Your task to perform on an android device: Clear the shopping cart on newegg. Search for "usb-c to usb-a" on newegg, select the first entry, and add it to the cart. Image 0: 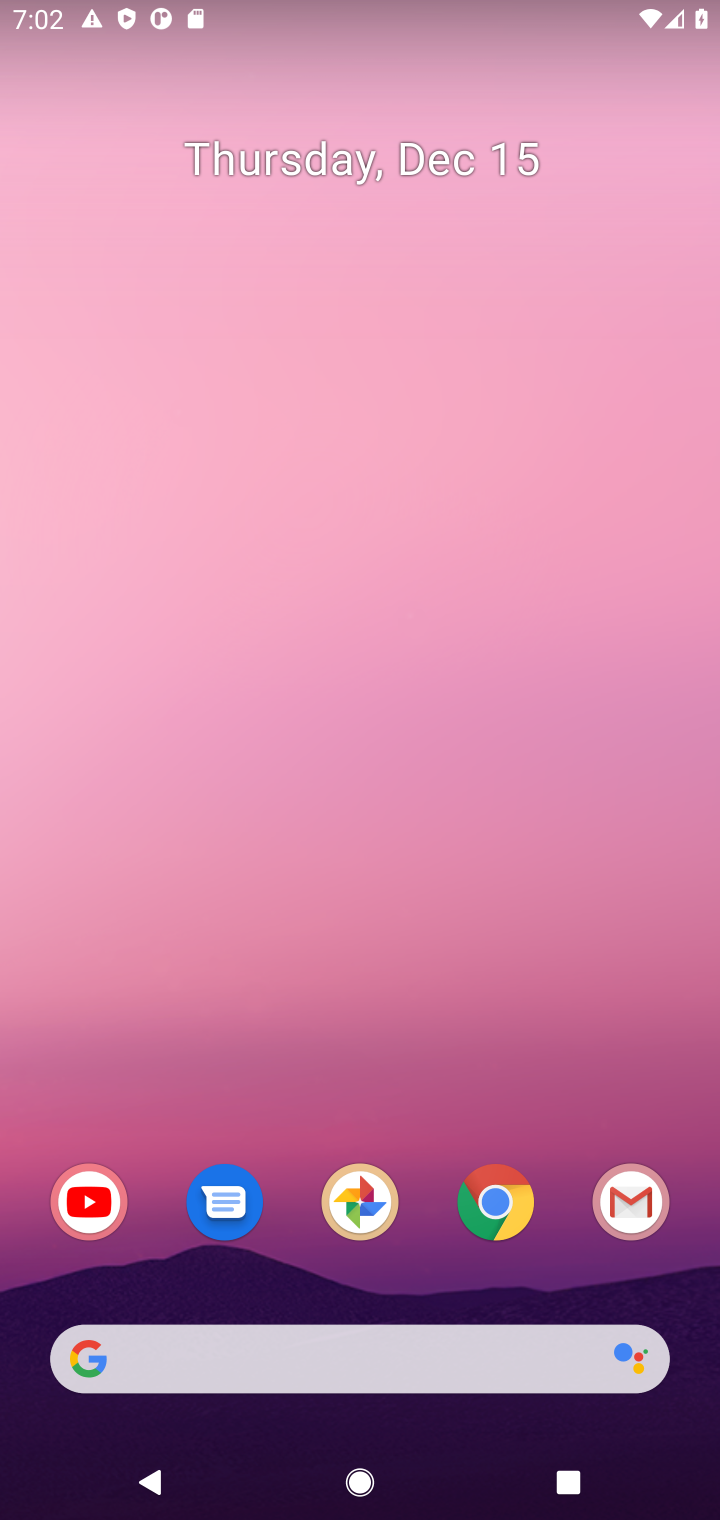
Step 0: click (492, 1209)
Your task to perform on an android device: Clear the shopping cart on newegg. Search for "usb-c to usb-a" on newegg, select the first entry, and add it to the cart. Image 1: 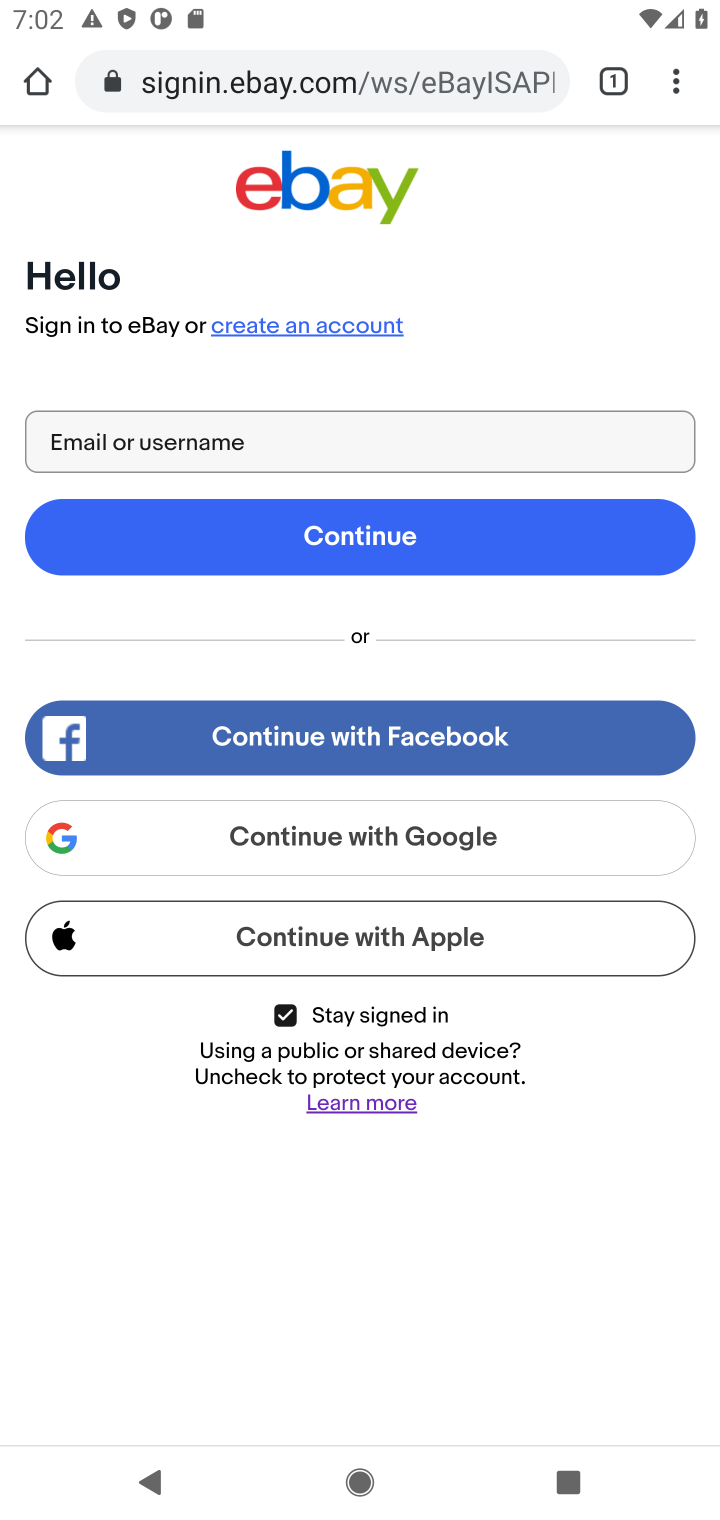
Step 1: click (264, 96)
Your task to perform on an android device: Clear the shopping cart on newegg. Search for "usb-c to usb-a" on newegg, select the first entry, and add it to the cart. Image 2: 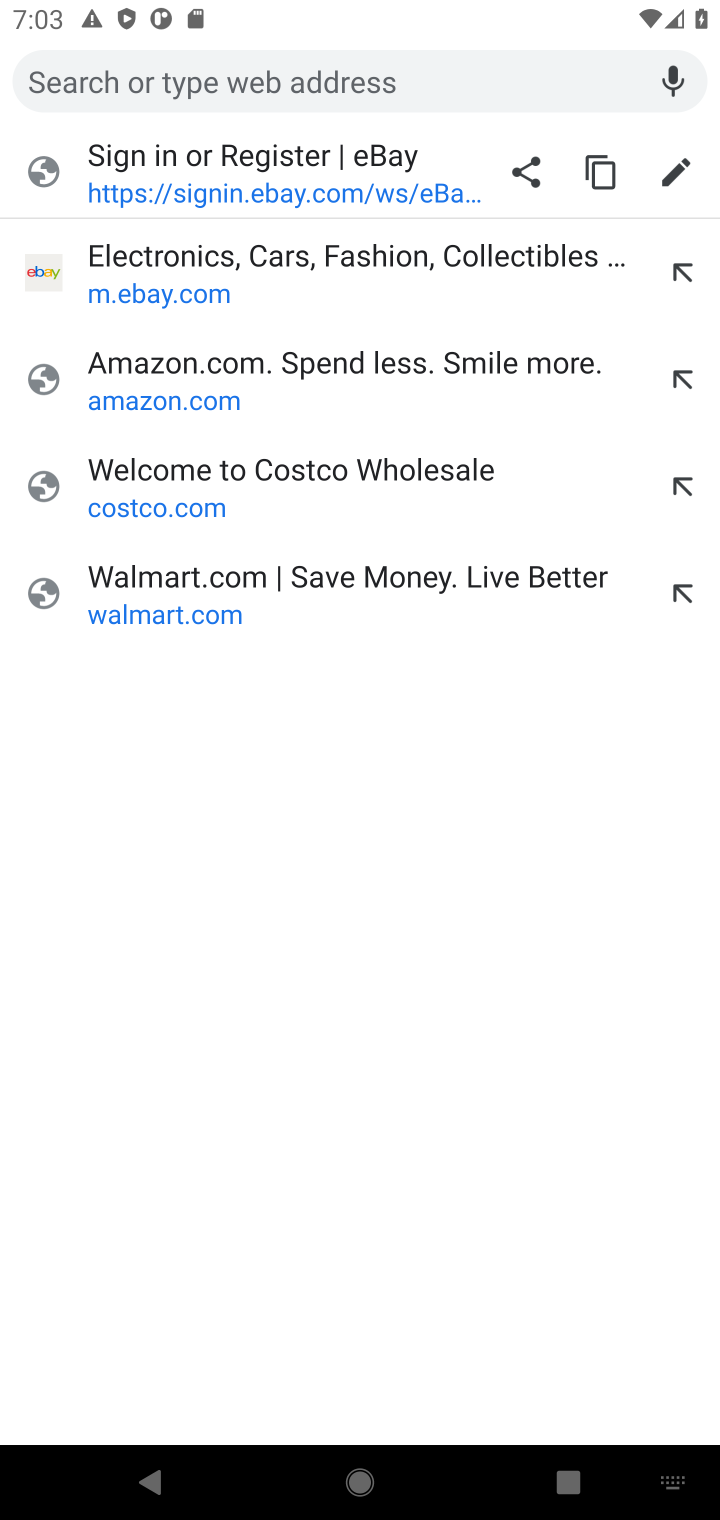
Step 2: type "newegg.com"
Your task to perform on an android device: Clear the shopping cart on newegg. Search for "usb-c to usb-a" on newegg, select the first entry, and add it to the cart. Image 3: 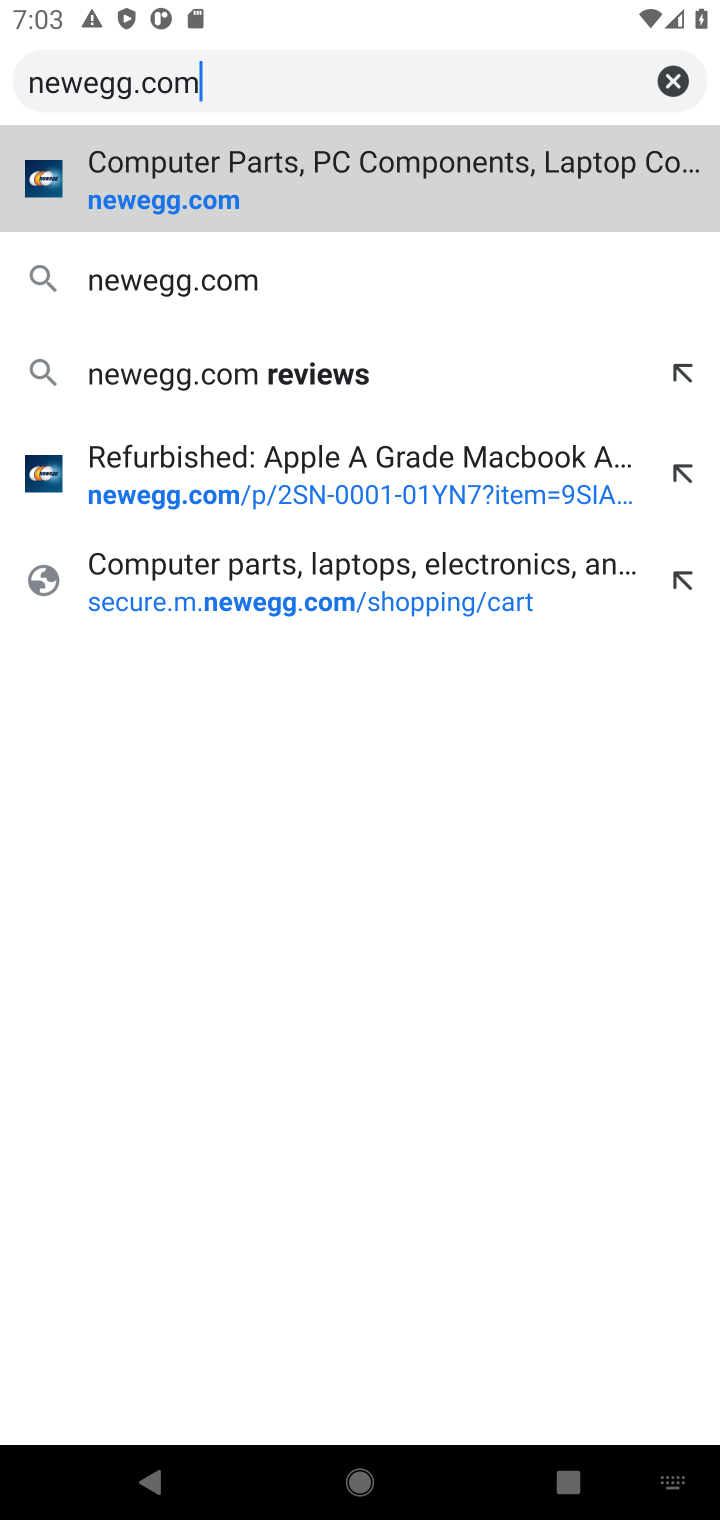
Step 3: click (151, 200)
Your task to perform on an android device: Clear the shopping cart on newegg. Search for "usb-c to usb-a" on newegg, select the first entry, and add it to the cart. Image 4: 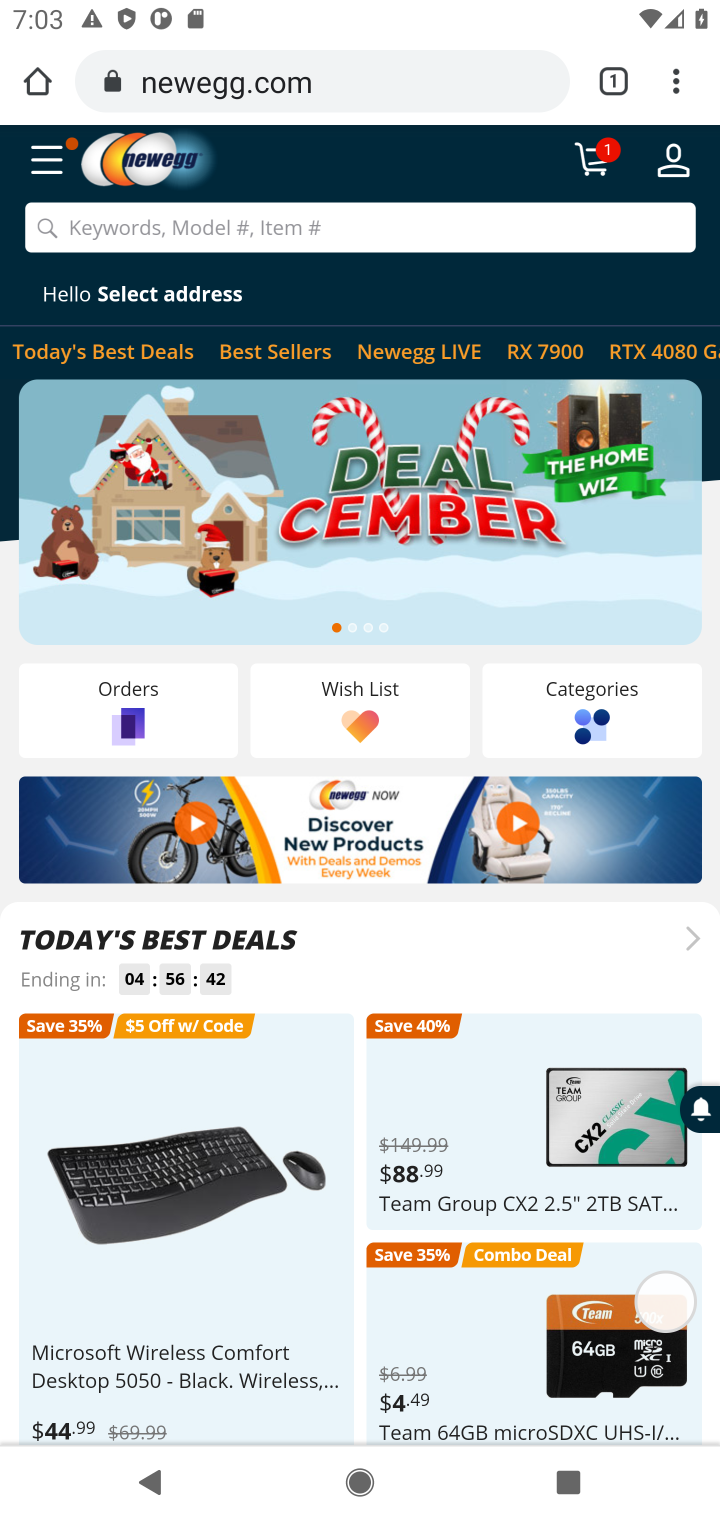
Step 4: click (593, 170)
Your task to perform on an android device: Clear the shopping cart on newegg. Search for "usb-c to usb-a" on newegg, select the first entry, and add it to the cart. Image 5: 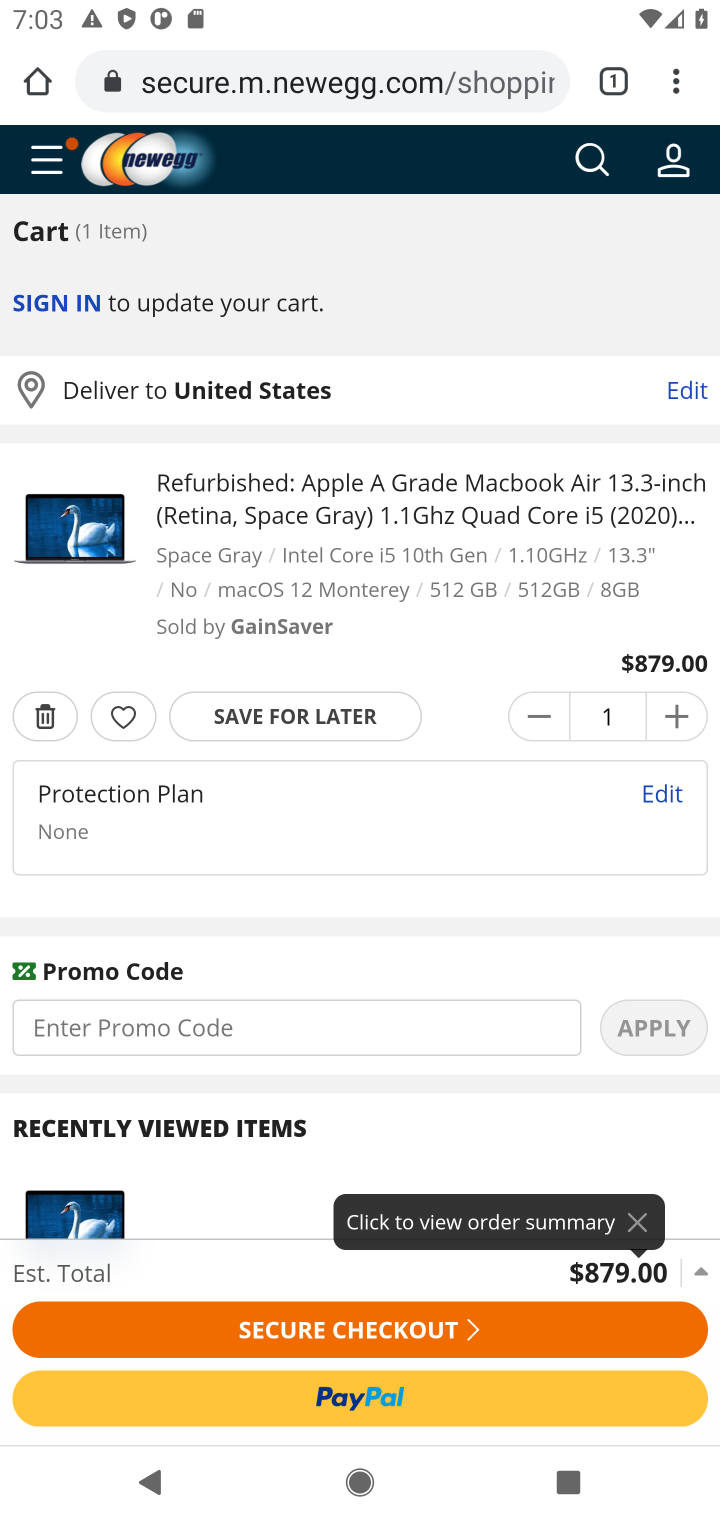
Step 5: click (35, 714)
Your task to perform on an android device: Clear the shopping cart on newegg. Search for "usb-c to usb-a" on newegg, select the first entry, and add it to the cart. Image 6: 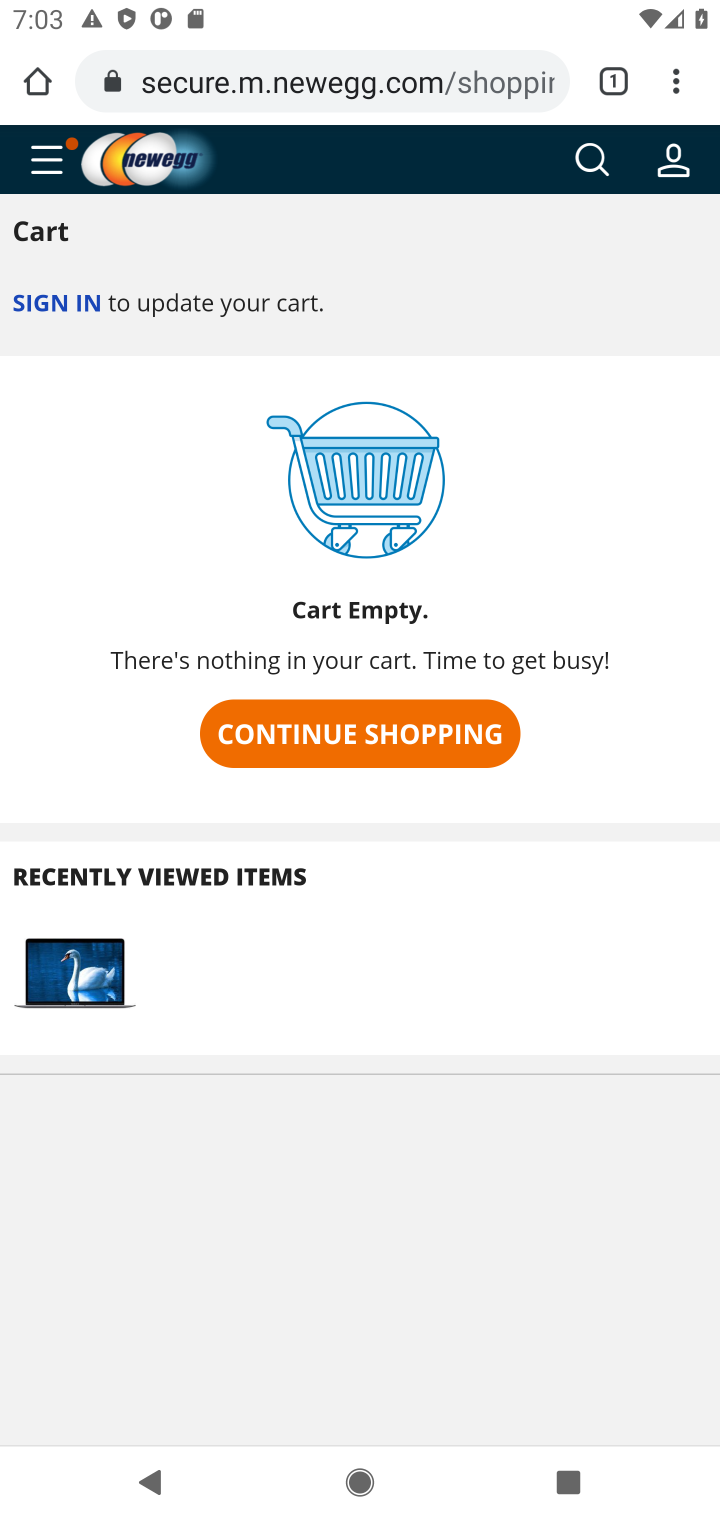
Step 6: click (596, 151)
Your task to perform on an android device: Clear the shopping cart on newegg. Search for "usb-c to usb-a" on newegg, select the first entry, and add it to the cart. Image 7: 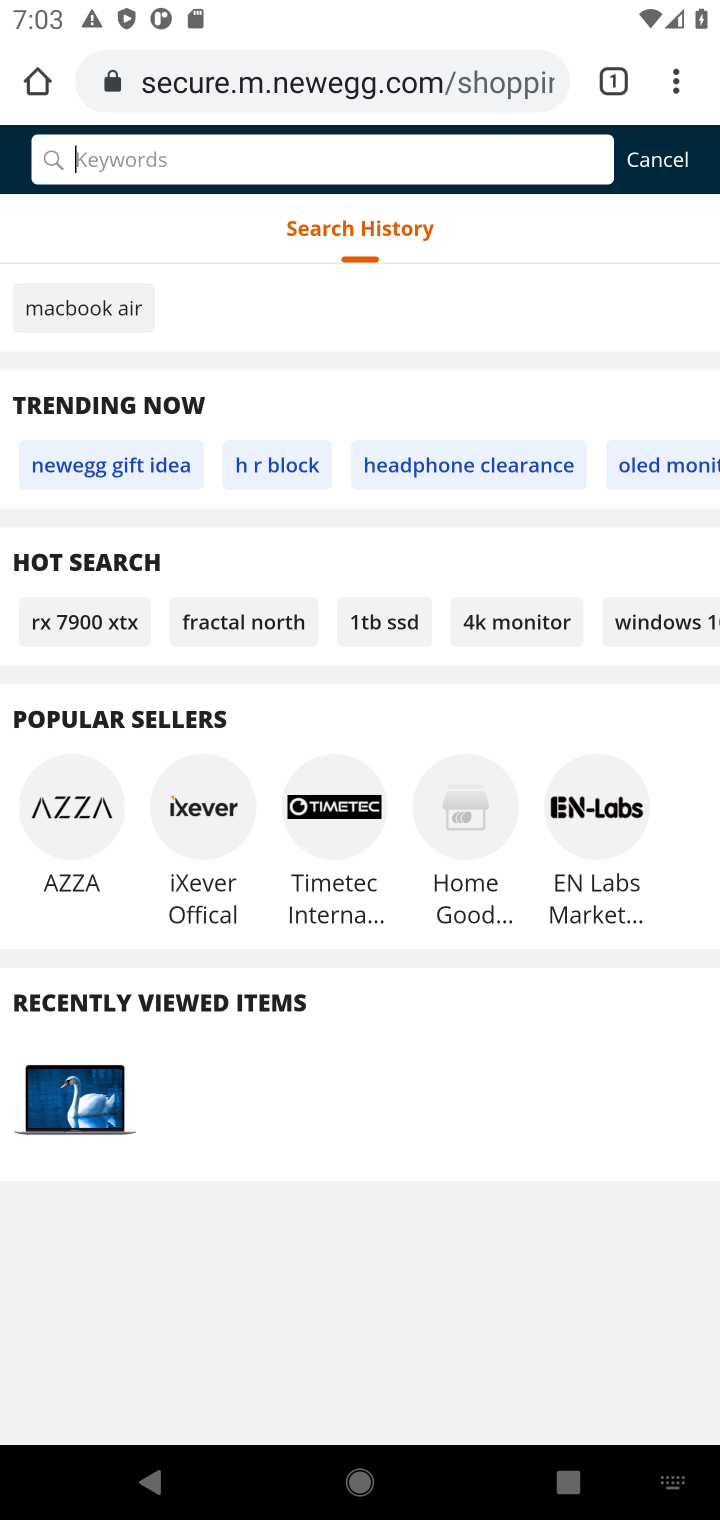
Step 7: click (596, 151)
Your task to perform on an android device: Clear the shopping cart on newegg. Search for "usb-c to usb-a" on newegg, select the first entry, and add it to the cart. Image 8: 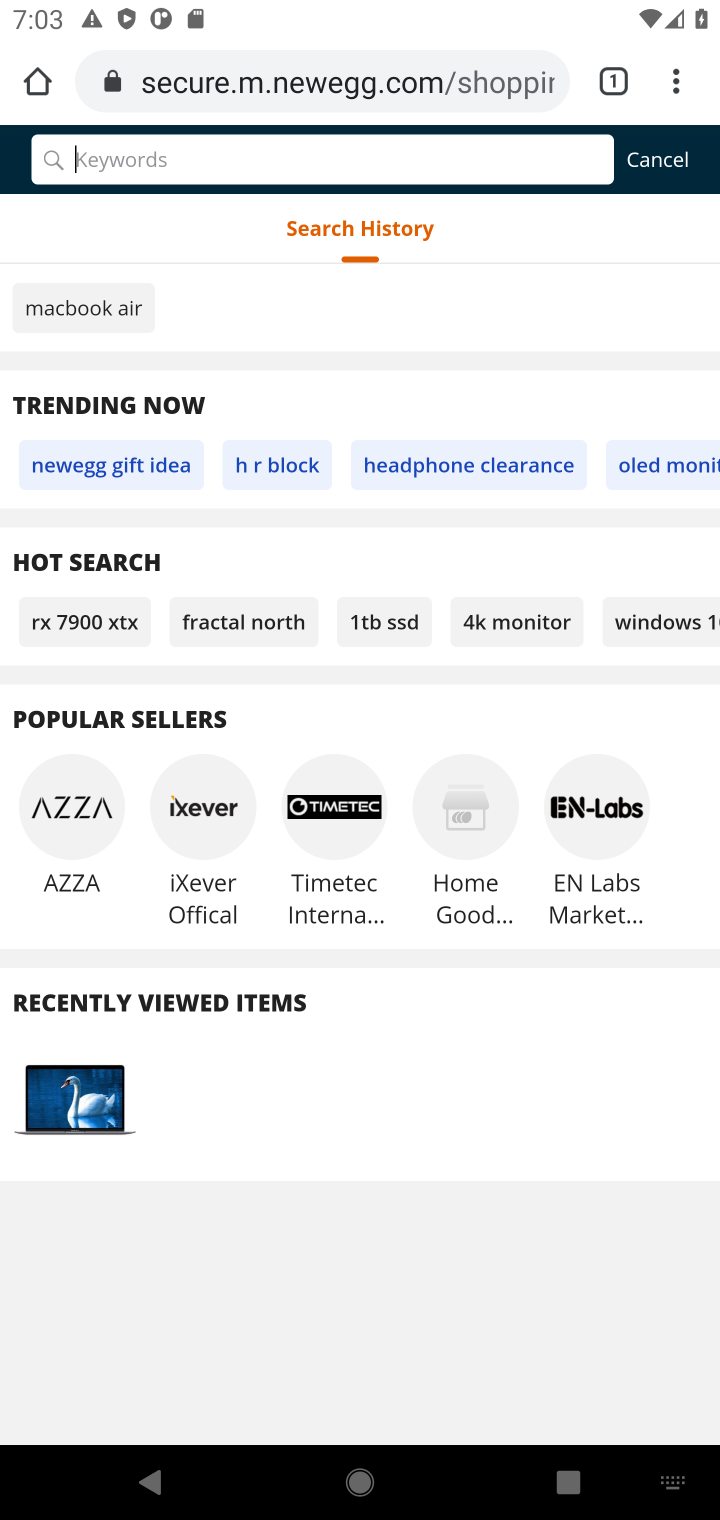
Step 8: click (154, 166)
Your task to perform on an android device: Clear the shopping cart on newegg. Search for "usb-c to usb-a" on newegg, select the first entry, and add it to the cart. Image 9: 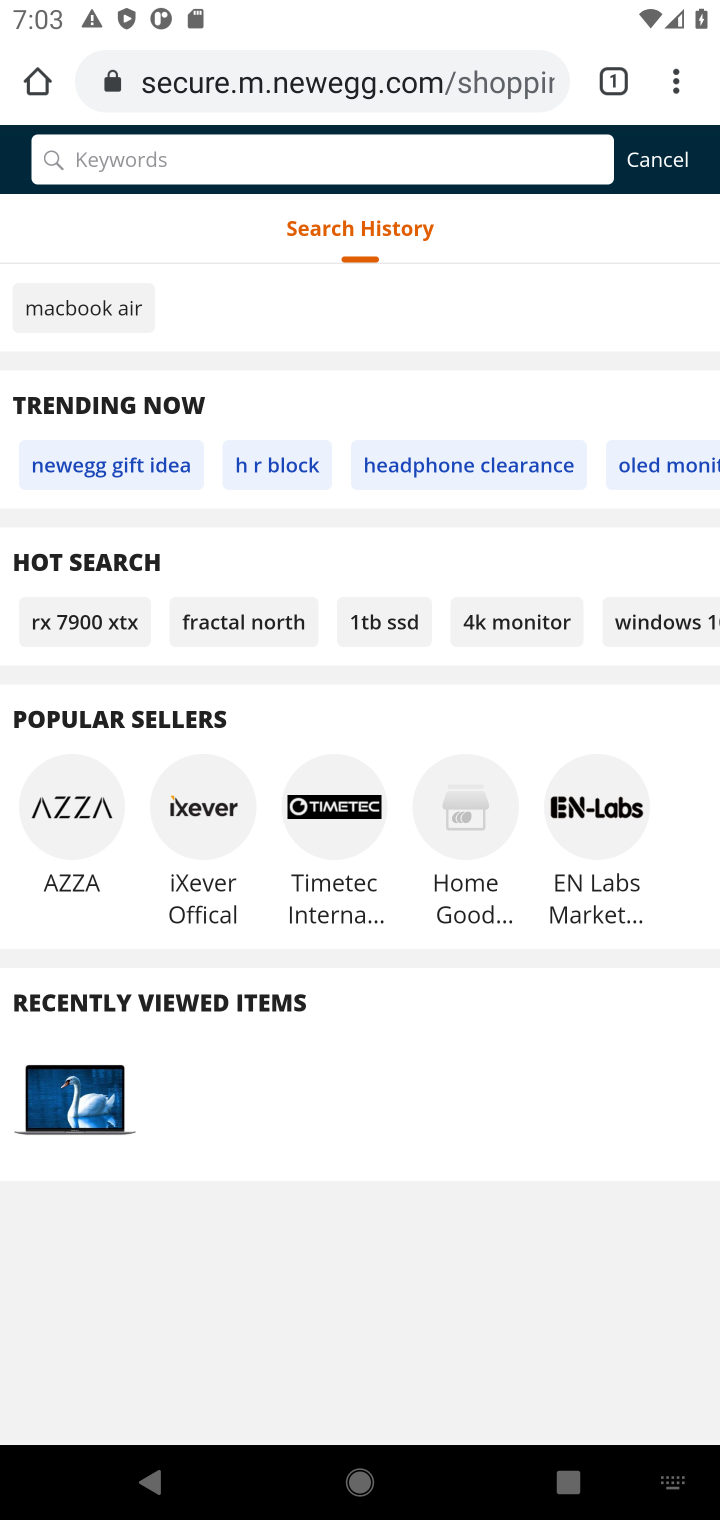
Step 9: type "usb-c to usb-a"
Your task to perform on an android device: Clear the shopping cart on newegg. Search for "usb-c to usb-a" on newegg, select the first entry, and add it to the cart. Image 10: 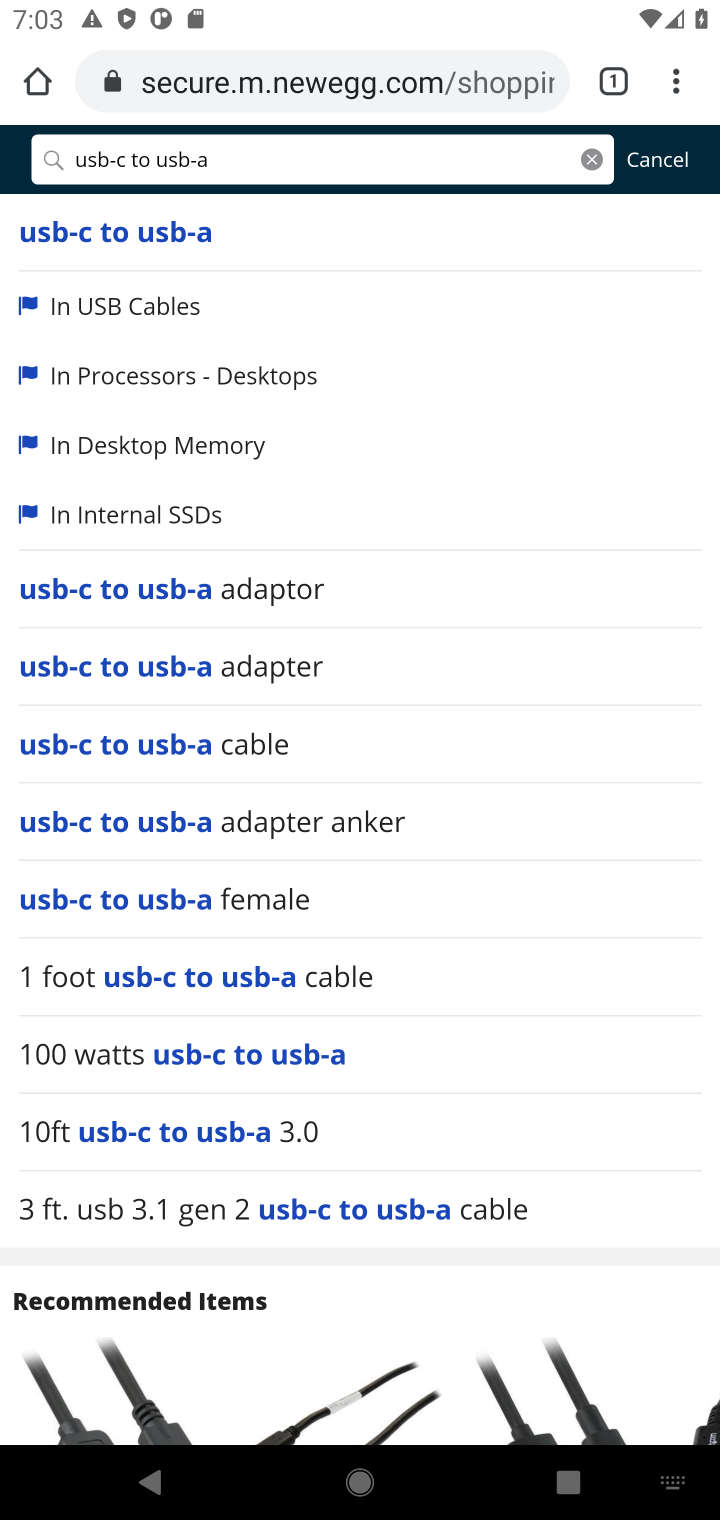
Step 10: click (132, 233)
Your task to perform on an android device: Clear the shopping cart on newegg. Search for "usb-c to usb-a" on newegg, select the first entry, and add it to the cart. Image 11: 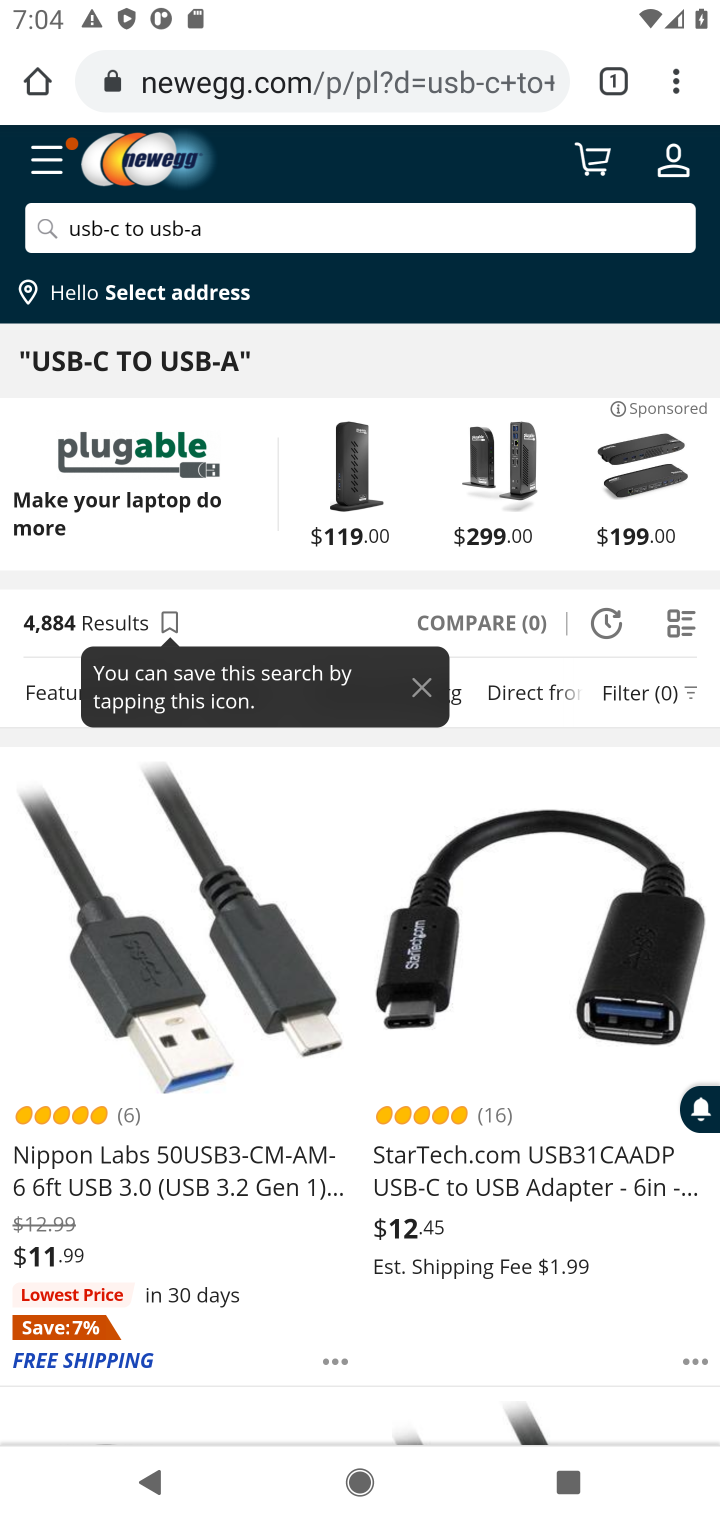
Step 11: drag from (261, 1300) to (331, 878)
Your task to perform on an android device: Clear the shopping cart on newegg. Search for "usb-c to usb-a" on newegg, select the first entry, and add it to the cart. Image 12: 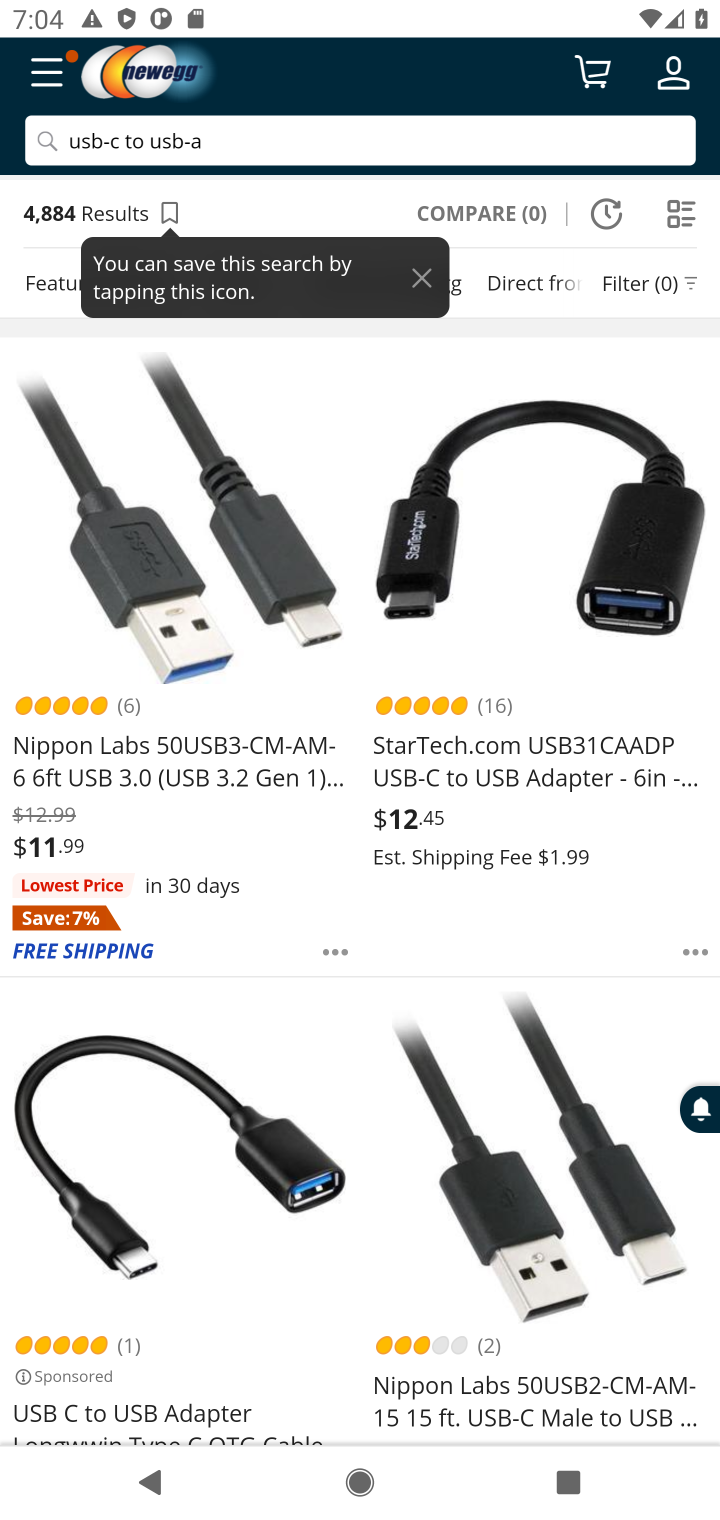
Step 12: click (177, 765)
Your task to perform on an android device: Clear the shopping cart on newegg. Search for "usb-c to usb-a" on newegg, select the first entry, and add it to the cart. Image 13: 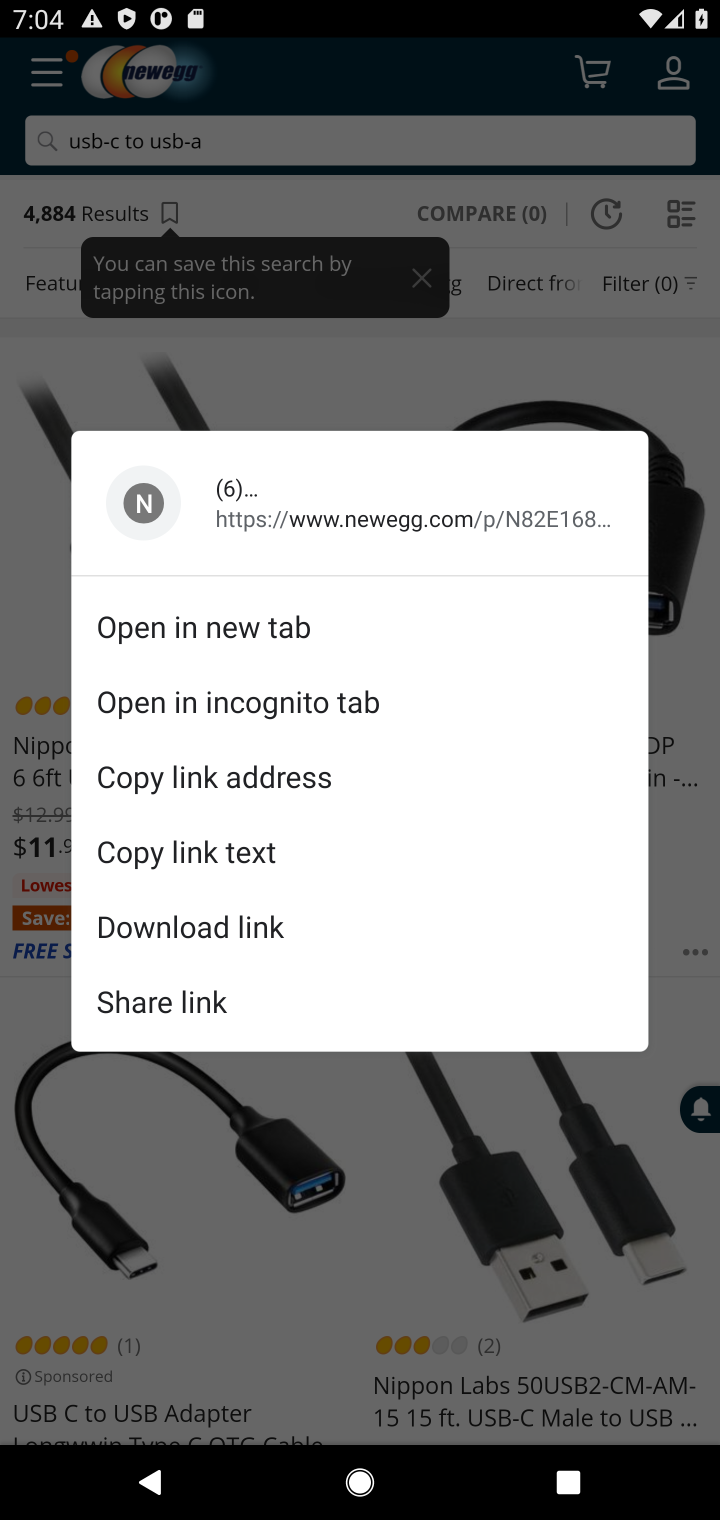
Step 13: click (51, 768)
Your task to perform on an android device: Clear the shopping cart on newegg. Search for "usb-c to usb-a" on newegg, select the first entry, and add it to the cart. Image 14: 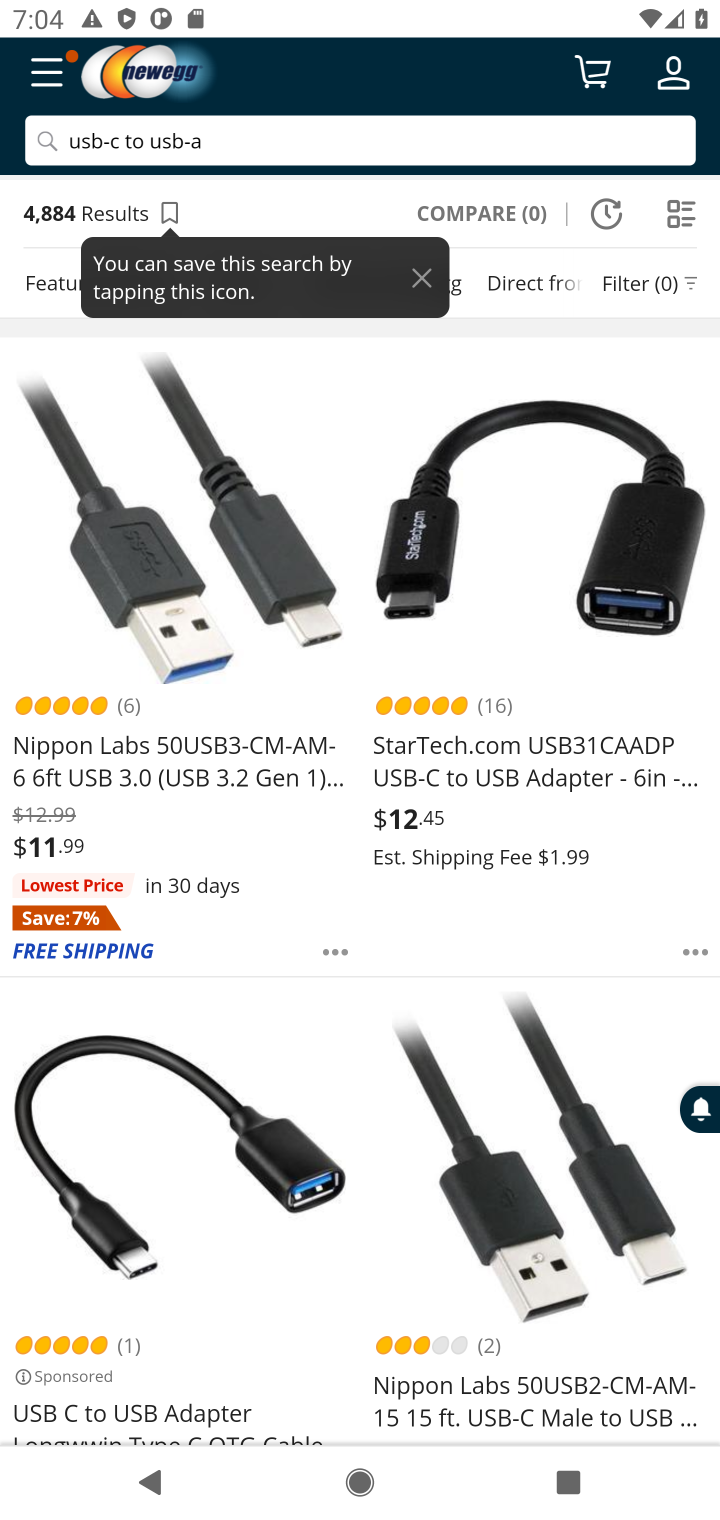
Step 14: click (127, 760)
Your task to perform on an android device: Clear the shopping cart on newegg. Search for "usb-c to usb-a" on newegg, select the first entry, and add it to the cart. Image 15: 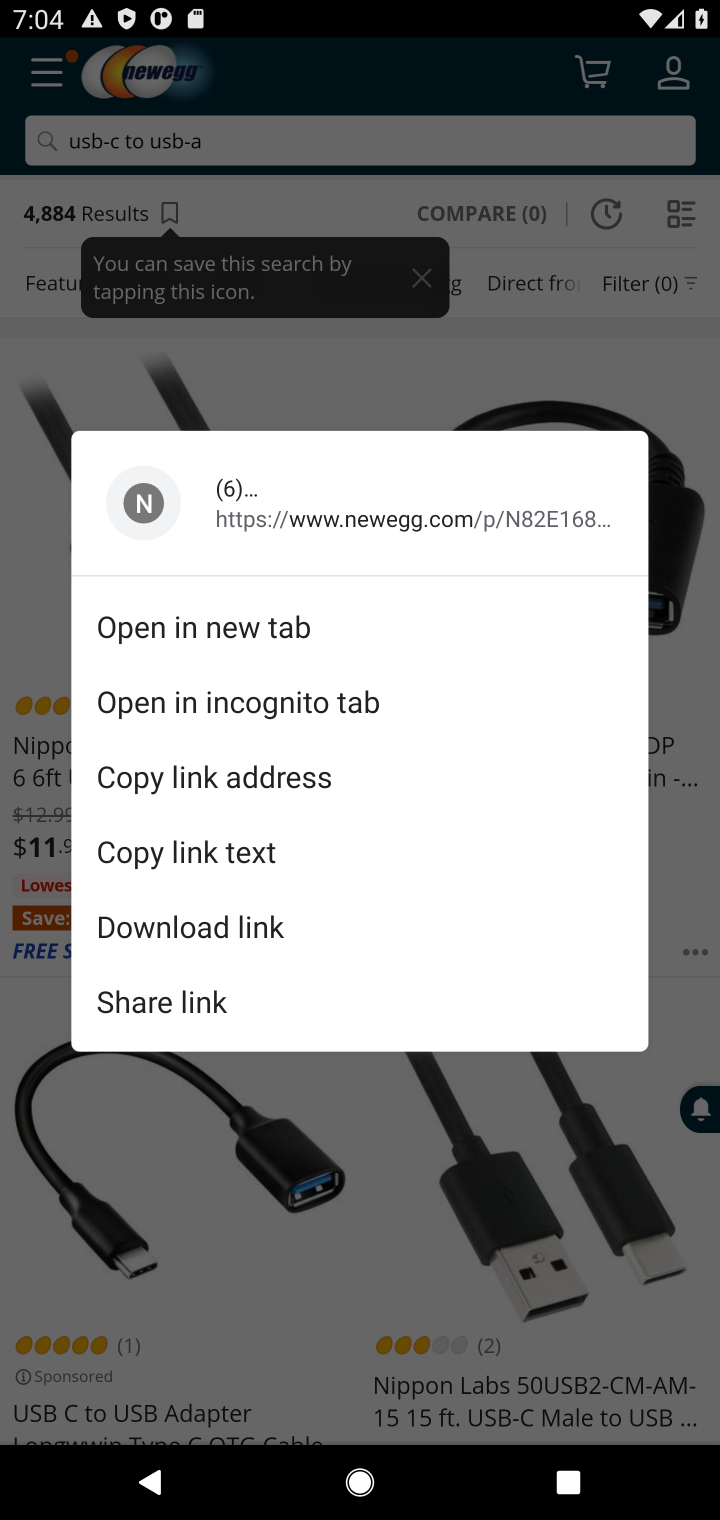
Step 15: click (46, 746)
Your task to perform on an android device: Clear the shopping cart on newegg. Search for "usb-c to usb-a" on newegg, select the first entry, and add it to the cart. Image 16: 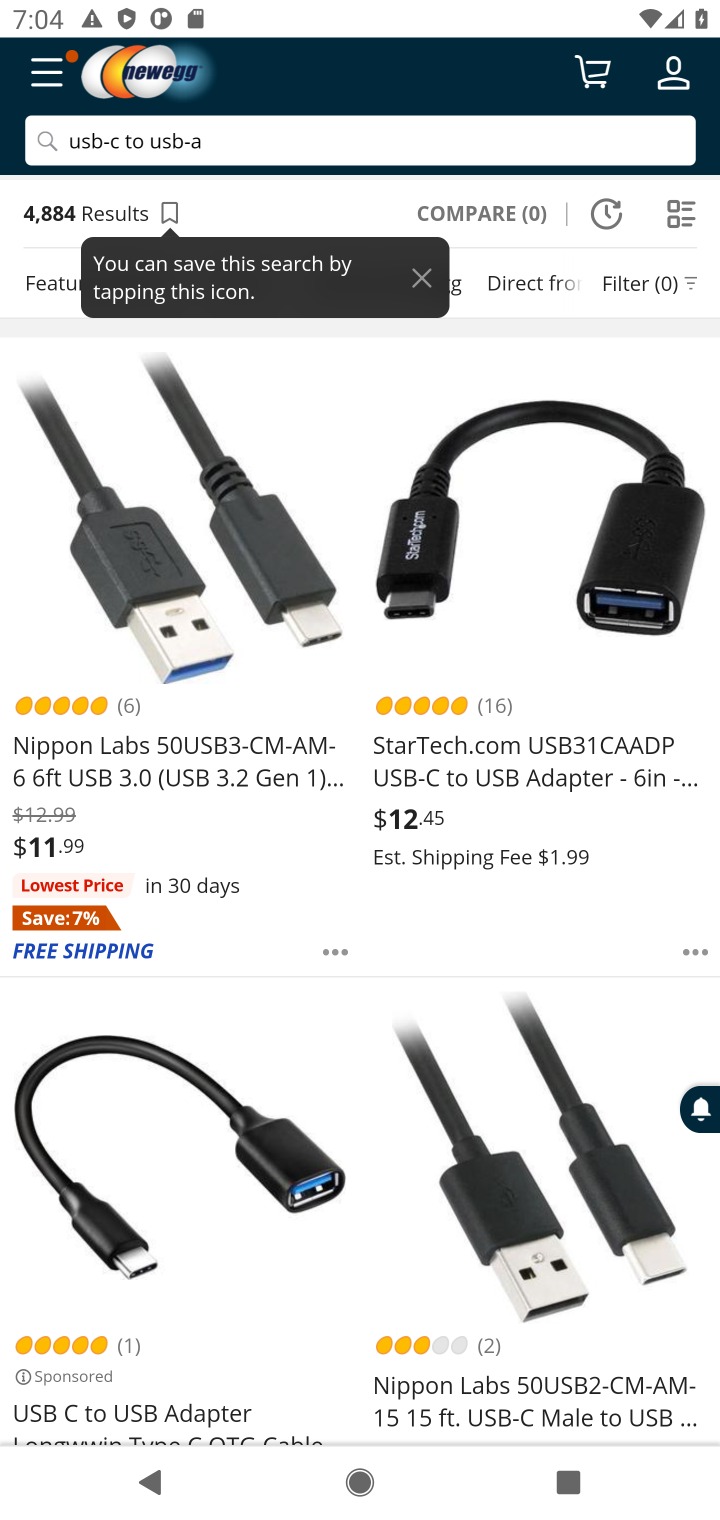
Step 16: click (122, 782)
Your task to perform on an android device: Clear the shopping cart on newegg. Search for "usb-c to usb-a" on newegg, select the first entry, and add it to the cart. Image 17: 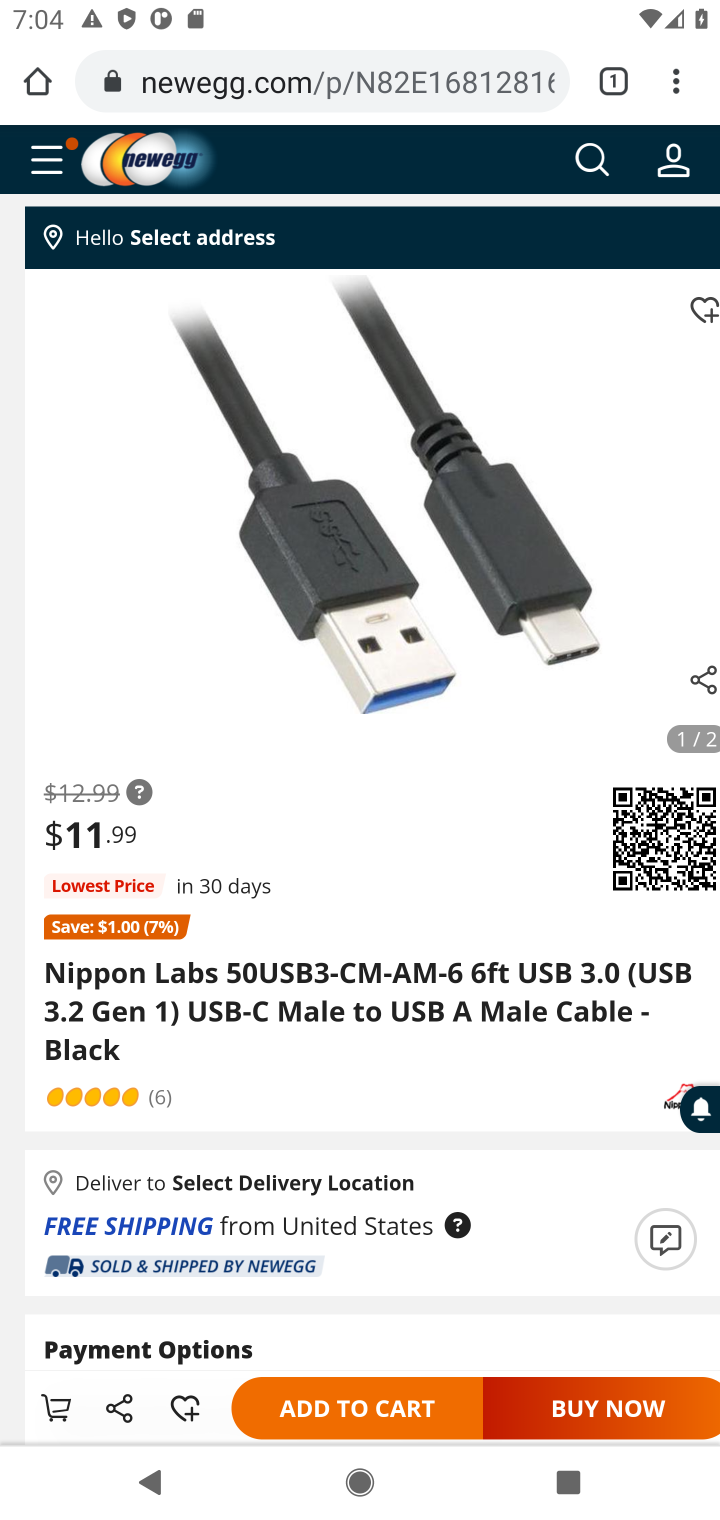
Step 17: click (324, 1412)
Your task to perform on an android device: Clear the shopping cart on newegg. Search for "usb-c to usb-a" on newegg, select the first entry, and add it to the cart. Image 18: 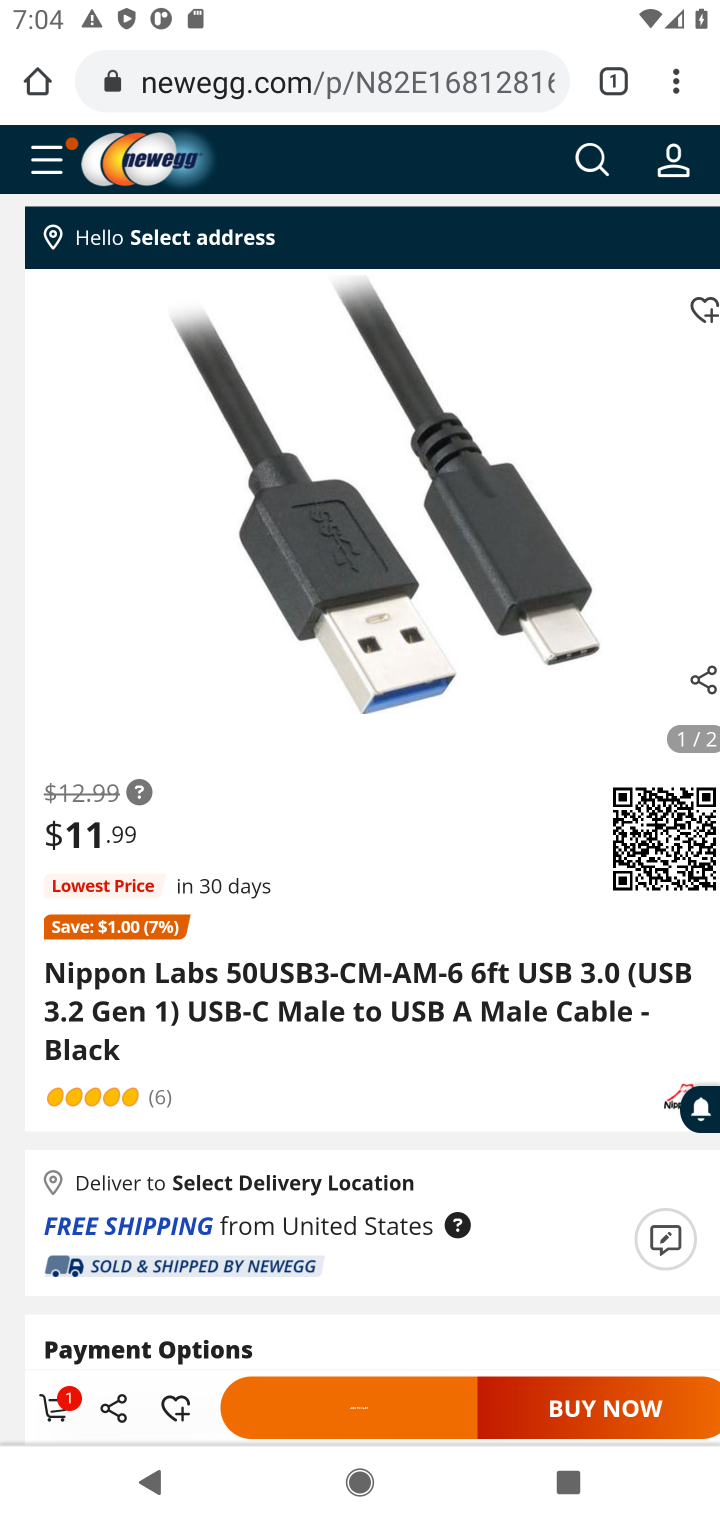
Step 18: task complete